Your task to perform on an android device: What's on my calendar tomorrow? Image 0: 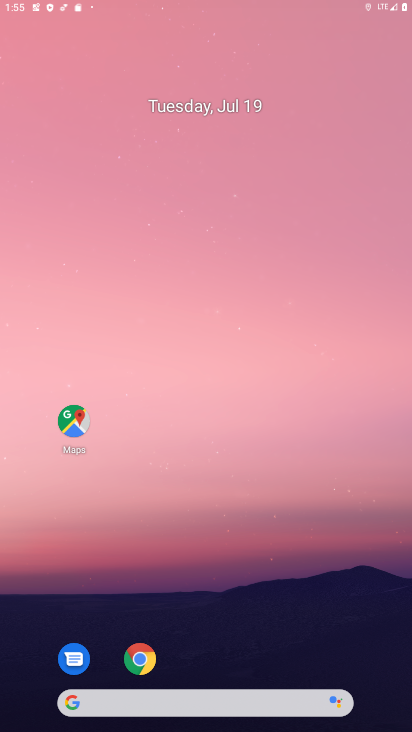
Step 0: press home button
Your task to perform on an android device: What's on my calendar tomorrow? Image 1: 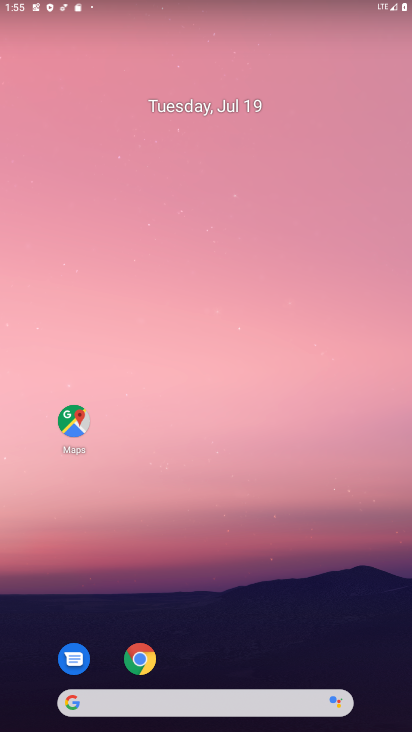
Step 1: drag from (310, 630) to (372, 0)
Your task to perform on an android device: What's on my calendar tomorrow? Image 2: 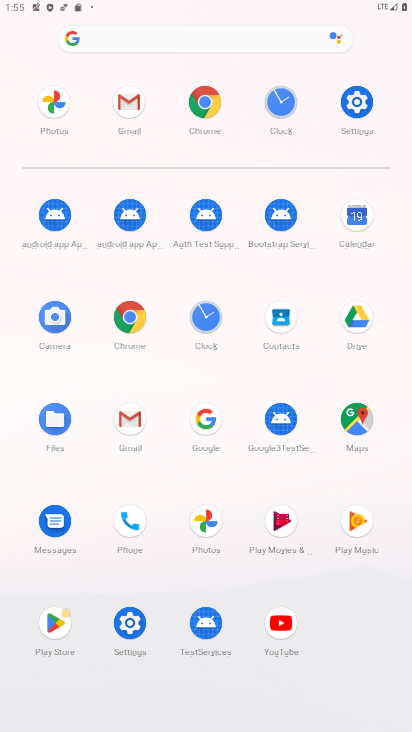
Step 2: click (371, 226)
Your task to perform on an android device: What's on my calendar tomorrow? Image 3: 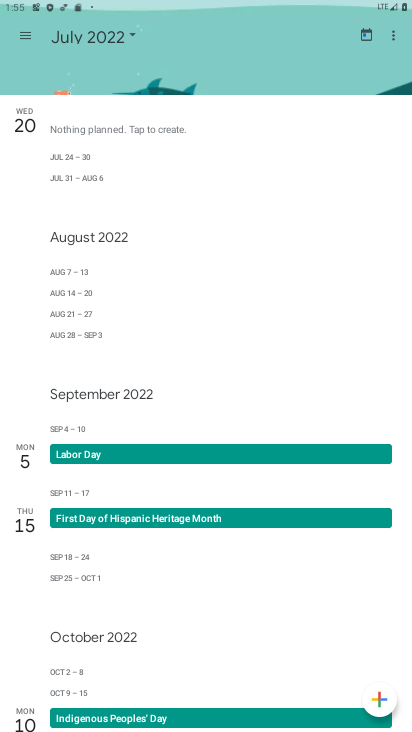
Step 3: click (132, 39)
Your task to perform on an android device: What's on my calendar tomorrow? Image 4: 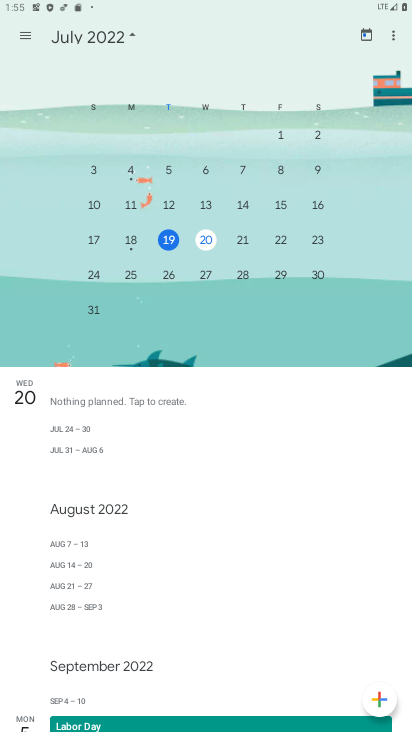
Step 4: click (207, 245)
Your task to perform on an android device: What's on my calendar tomorrow? Image 5: 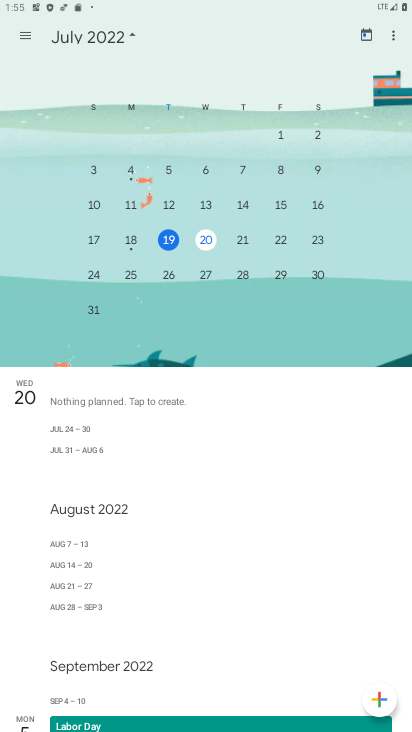
Step 5: click (207, 245)
Your task to perform on an android device: What's on my calendar tomorrow? Image 6: 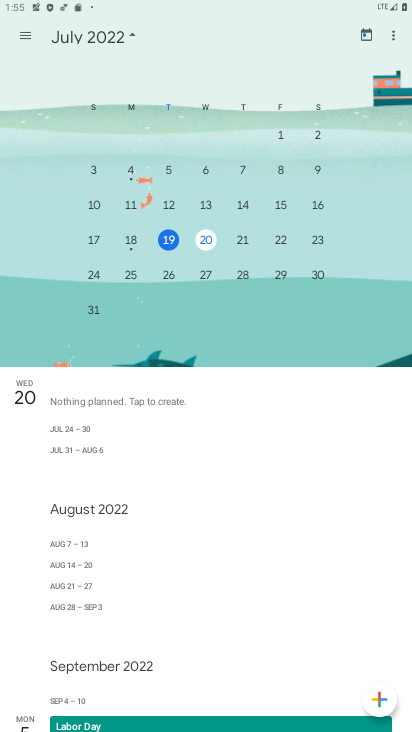
Step 6: task complete